Your task to perform on an android device: Go to Google Image 0: 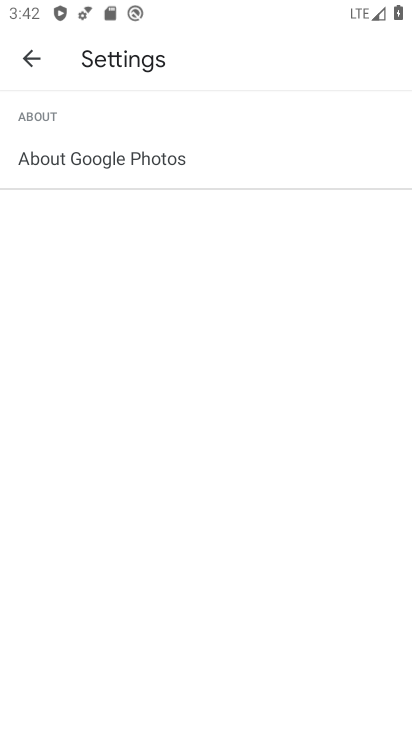
Step 0: press home button
Your task to perform on an android device: Go to Google Image 1: 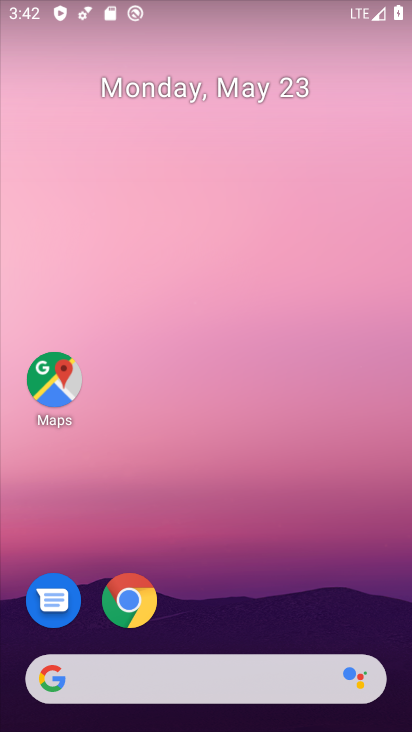
Step 1: drag from (286, 634) to (267, 22)
Your task to perform on an android device: Go to Google Image 2: 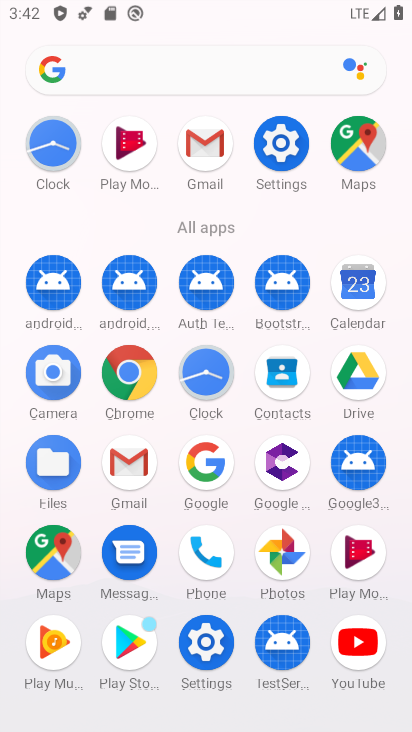
Step 2: click (210, 461)
Your task to perform on an android device: Go to Google Image 3: 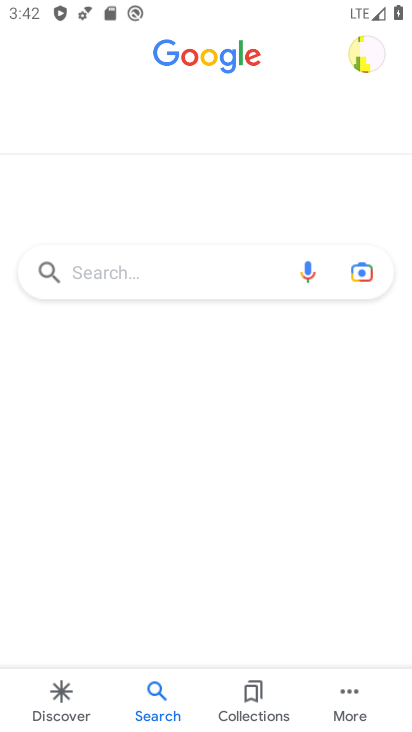
Step 3: task complete